Your task to perform on an android device: turn off data saver in the chrome app Image 0: 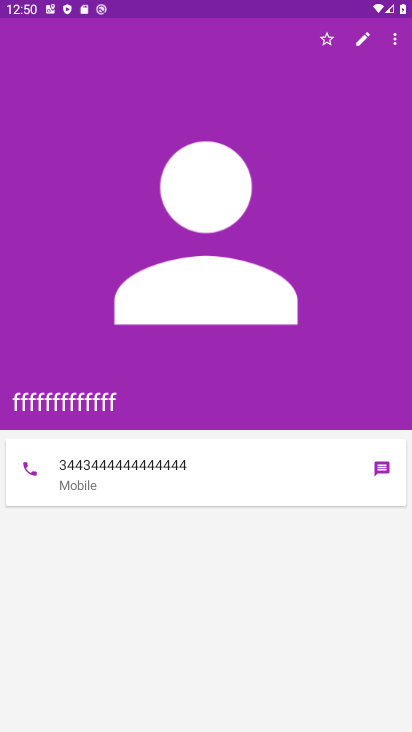
Step 0: press home button
Your task to perform on an android device: turn off data saver in the chrome app Image 1: 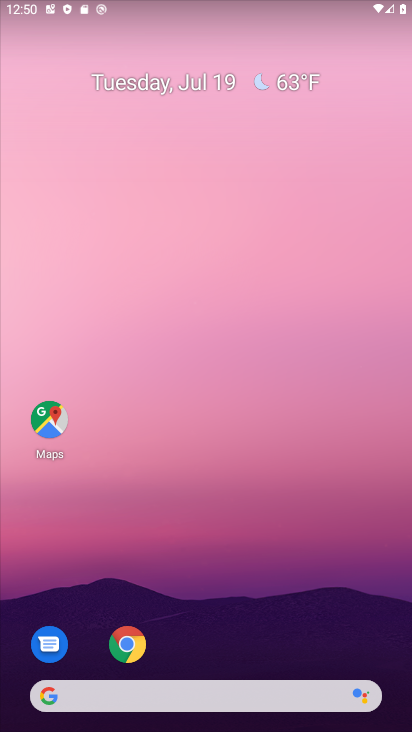
Step 1: click (131, 644)
Your task to perform on an android device: turn off data saver in the chrome app Image 2: 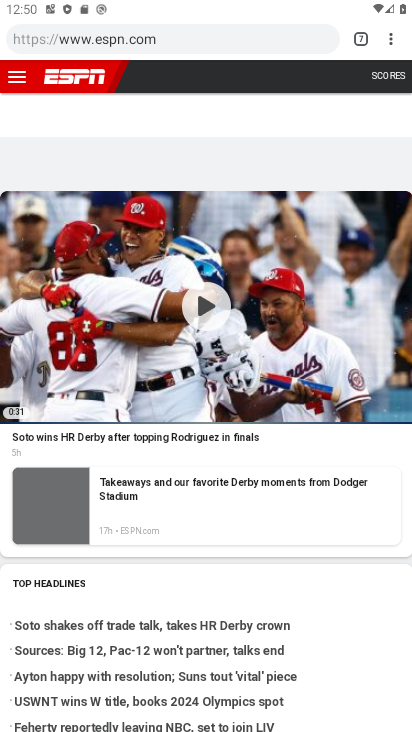
Step 2: click (391, 42)
Your task to perform on an android device: turn off data saver in the chrome app Image 3: 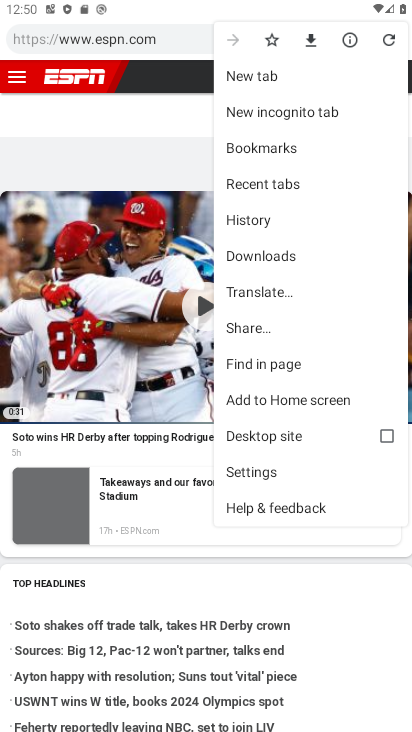
Step 3: click (251, 469)
Your task to perform on an android device: turn off data saver in the chrome app Image 4: 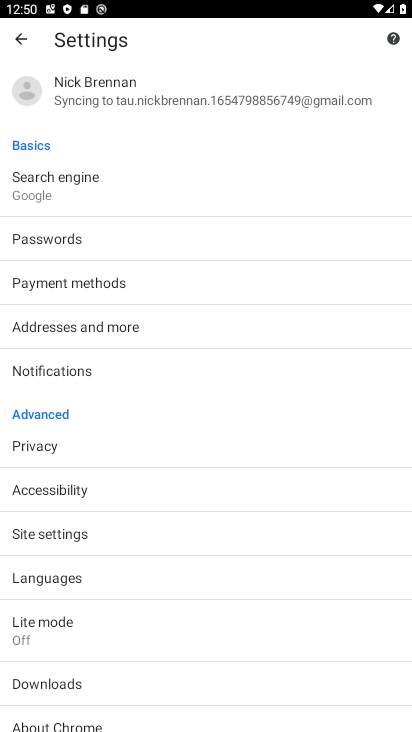
Step 4: click (59, 620)
Your task to perform on an android device: turn off data saver in the chrome app Image 5: 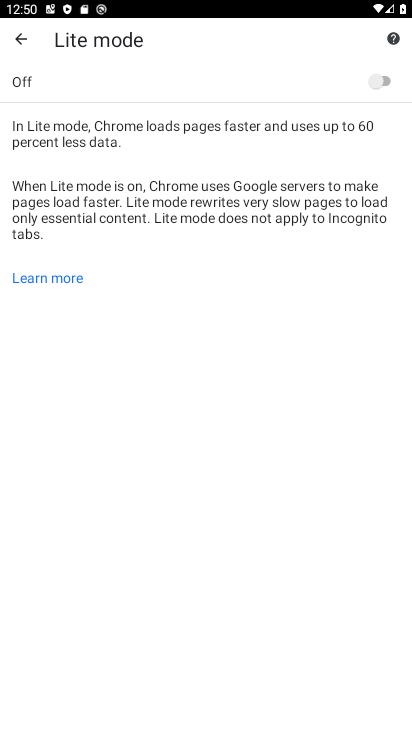
Step 5: task complete